Your task to perform on an android device: change notifications settings Image 0: 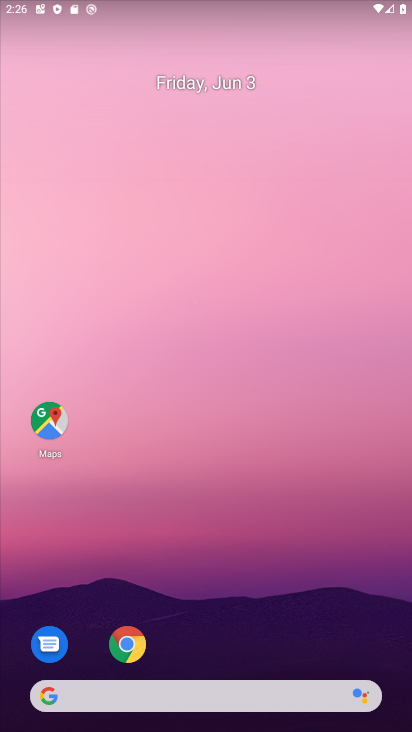
Step 0: drag from (223, 610) to (236, 206)
Your task to perform on an android device: change notifications settings Image 1: 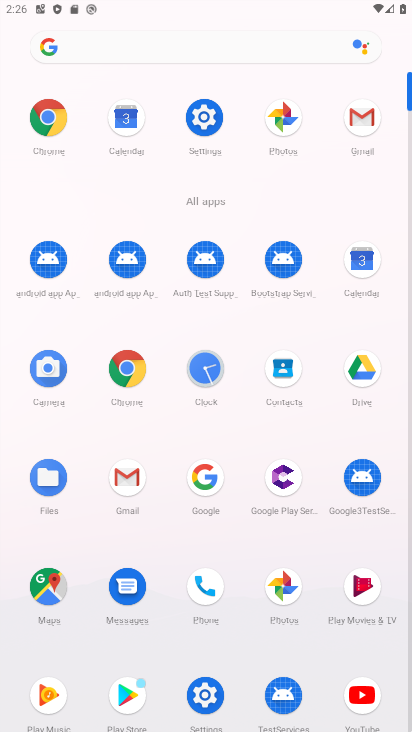
Step 1: click (196, 132)
Your task to perform on an android device: change notifications settings Image 2: 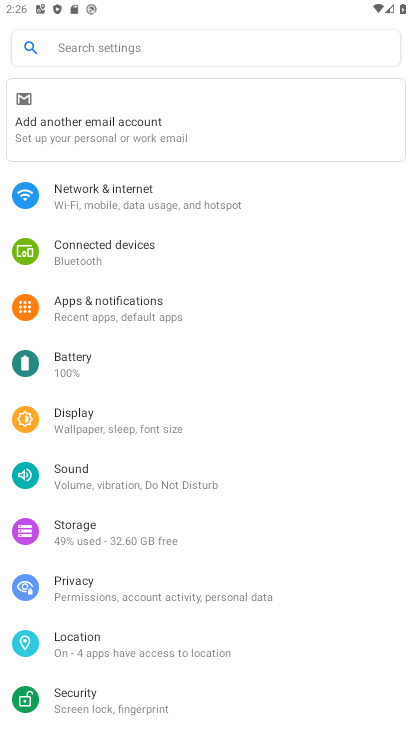
Step 2: click (168, 322)
Your task to perform on an android device: change notifications settings Image 3: 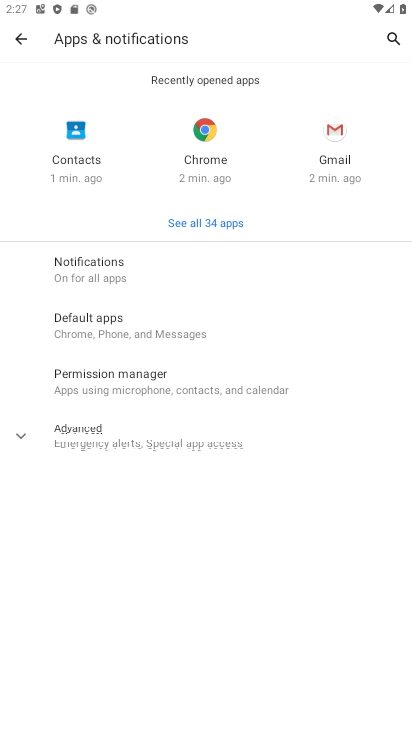
Step 3: click (148, 260)
Your task to perform on an android device: change notifications settings Image 4: 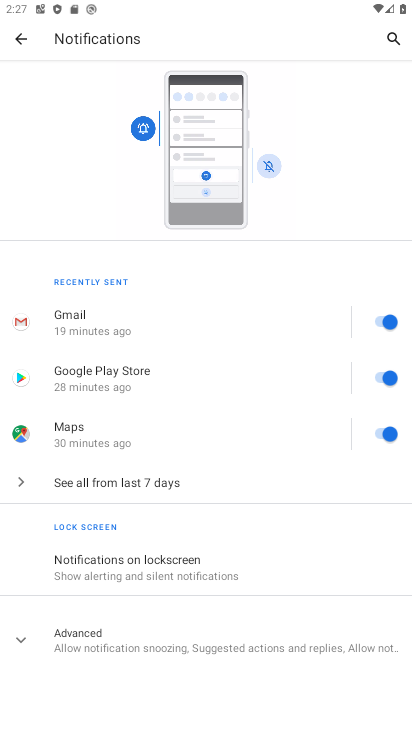
Step 4: click (226, 558)
Your task to perform on an android device: change notifications settings Image 5: 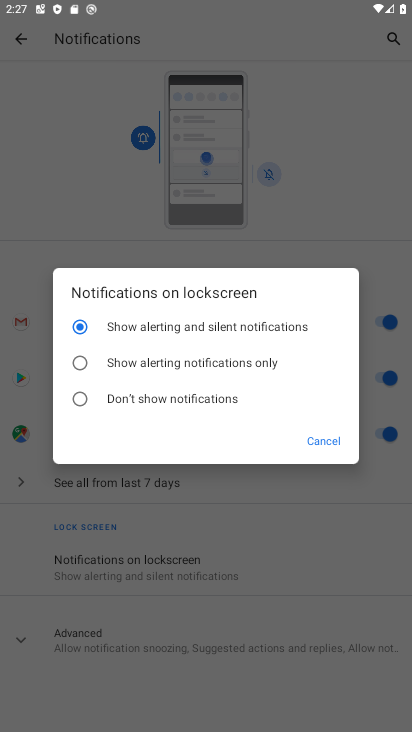
Step 5: click (193, 398)
Your task to perform on an android device: change notifications settings Image 6: 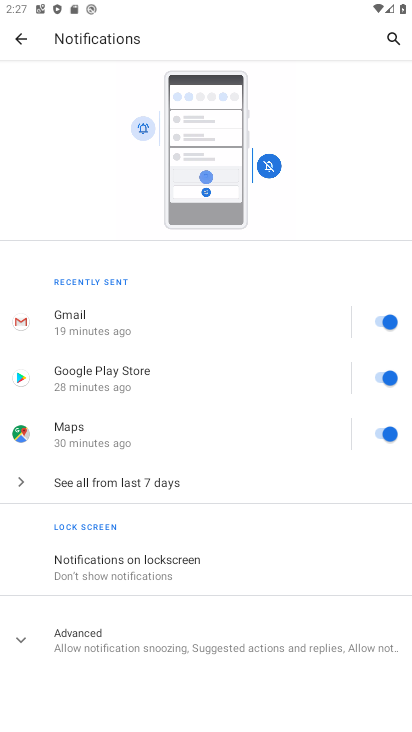
Step 6: task complete